Your task to perform on an android device: turn on wifi Image 0: 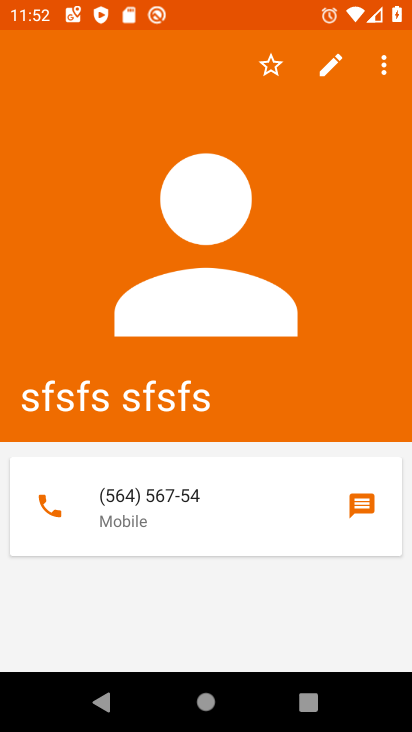
Step 0: press home button
Your task to perform on an android device: turn on wifi Image 1: 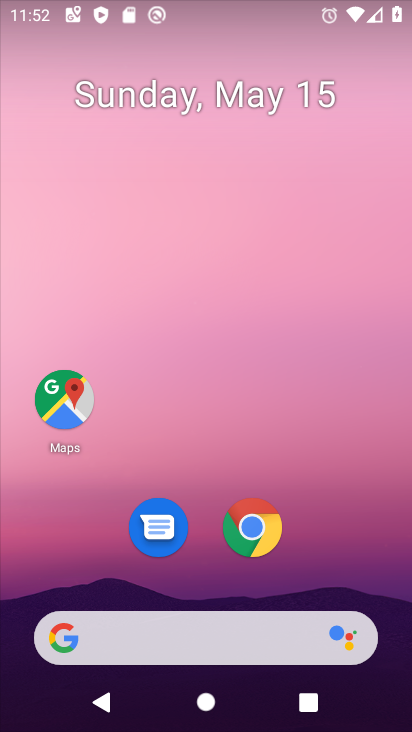
Step 1: drag from (346, 557) to (352, 118)
Your task to perform on an android device: turn on wifi Image 2: 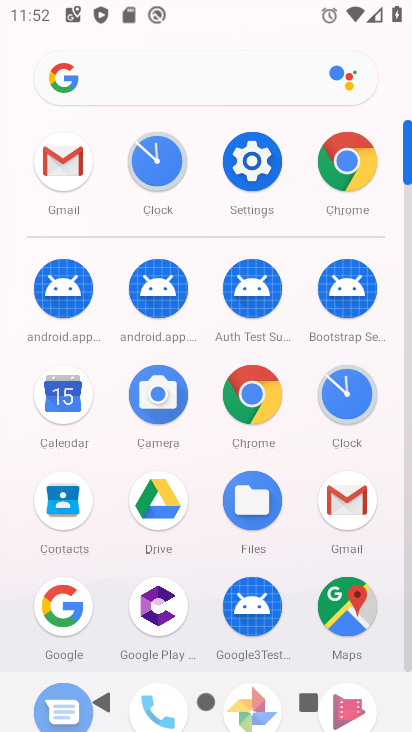
Step 2: click (269, 174)
Your task to perform on an android device: turn on wifi Image 3: 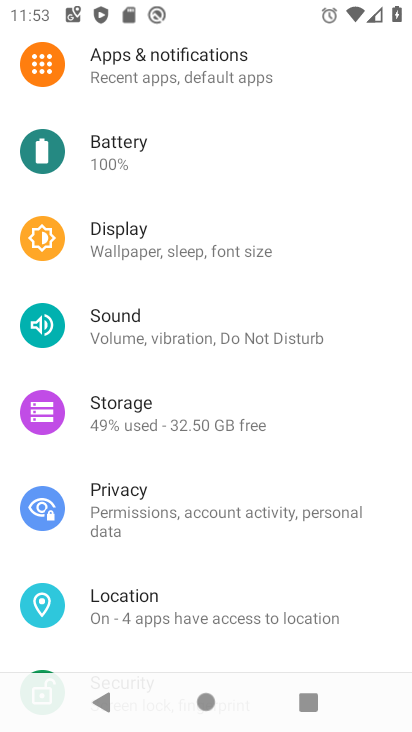
Step 3: drag from (225, 363) to (226, 579)
Your task to perform on an android device: turn on wifi Image 4: 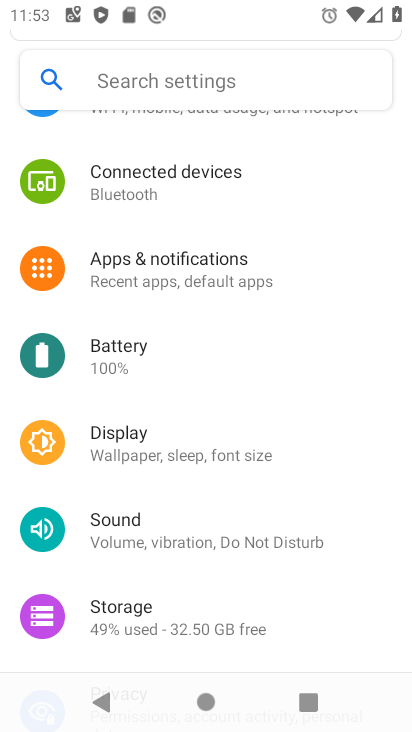
Step 4: drag from (188, 146) to (188, 354)
Your task to perform on an android device: turn on wifi Image 5: 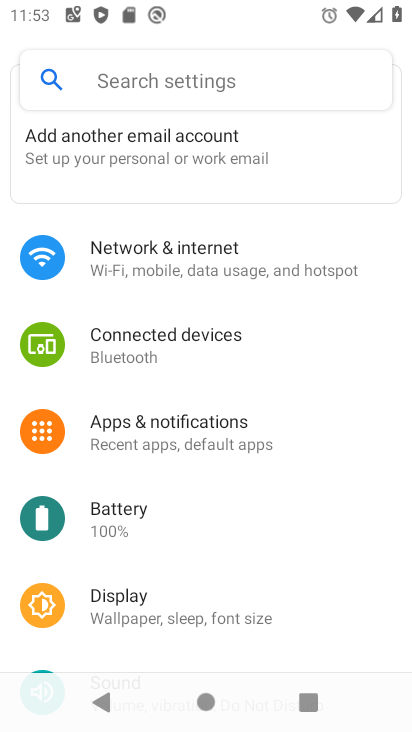
Step 5: click (172, 242)
Your task to perform on an android device: turn on wifi Image 6: 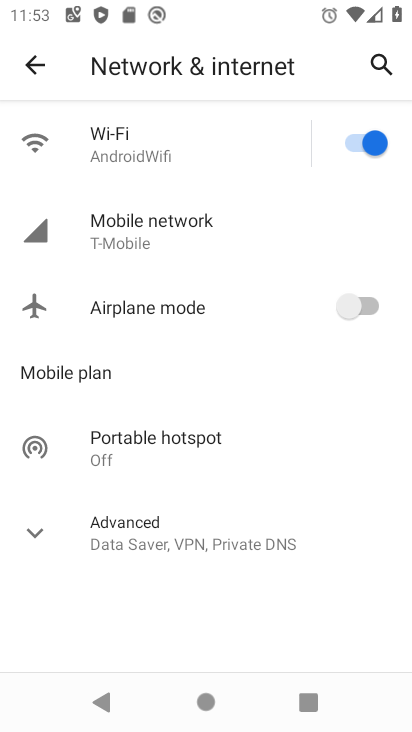
Step 6: task complete